Your task to perform on an android device: turn off notifications in google photos Image 0: 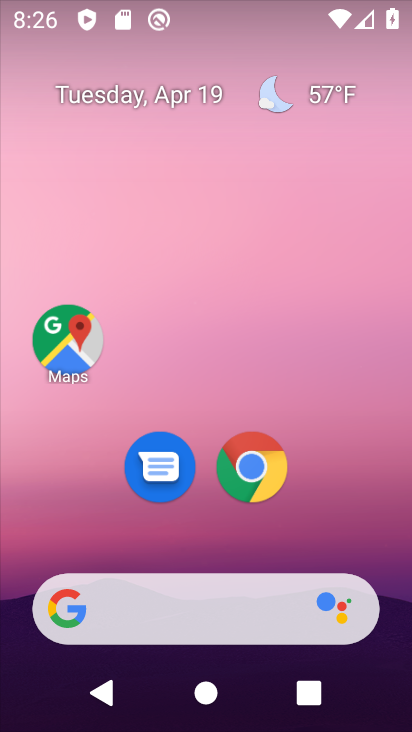
Step 0: drag from (384, 523) to (383, 29)
Your task to perform on an android device: turn off notifications in google photos Image 1: 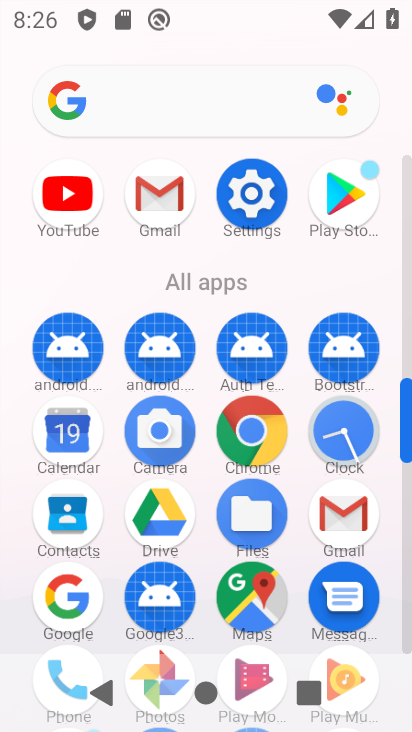
Step 1: drag from (404, 549) to (406, 499)
Your task to perform on an android device: turn off notifications in google photos Image 2: 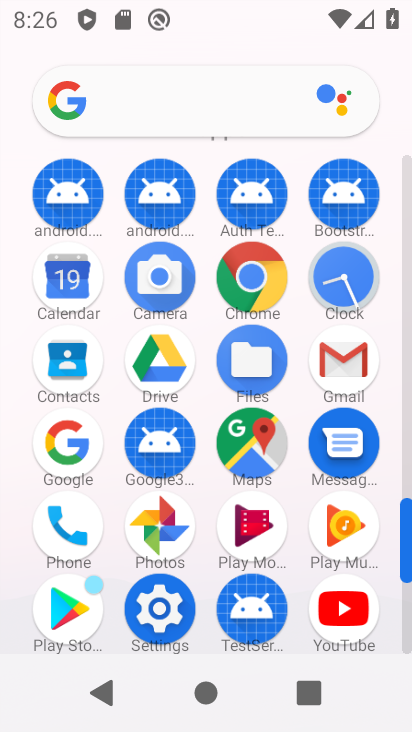
Step 2: click (169, 530)
Your task to perform on an android device: turn off notifications in google photos Image 3: 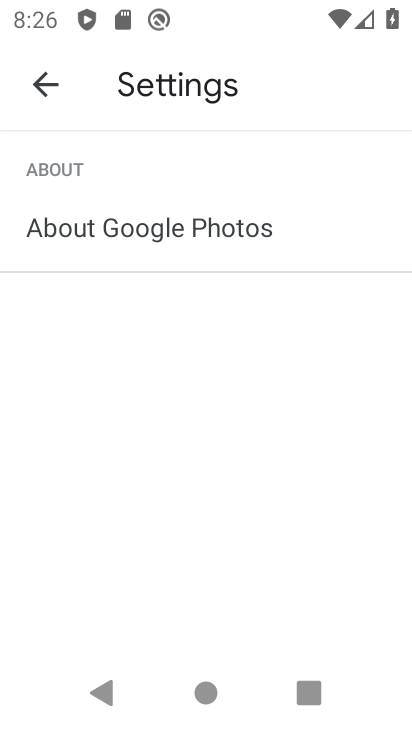
Step 3: click (38, 85)
Your task to perform on an android device: turn off notifications in google photos Image 4: 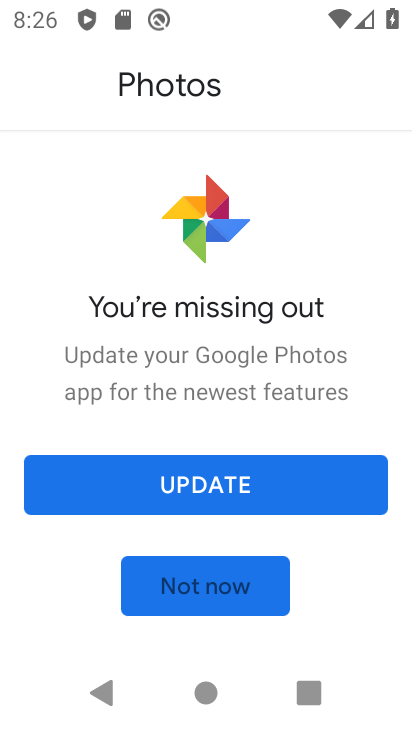
Step 4: click (206, 599)
Your task to perform on an android device: turn off notifications in google photos Image 5: 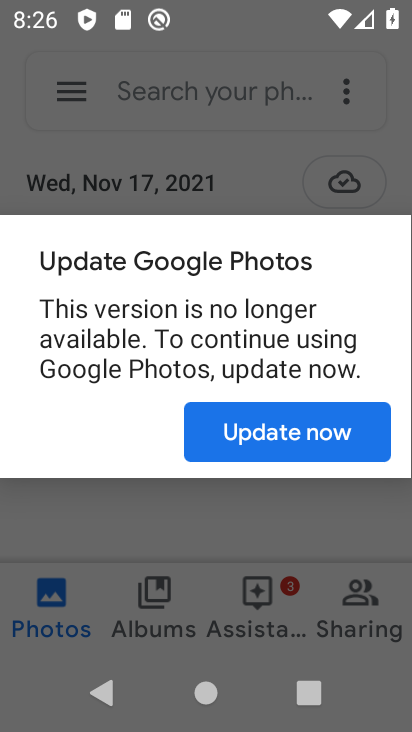
Step 5: click (259, 451)
Your task to perform on an android device: turn off notifications in google photos Image 6: 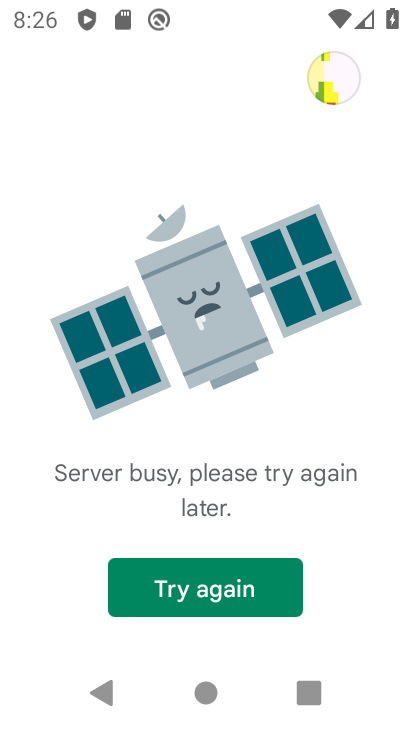
Step 6: click (218, 596)
Your task to perform on an android device: turn off notifications in google photos Image 7: 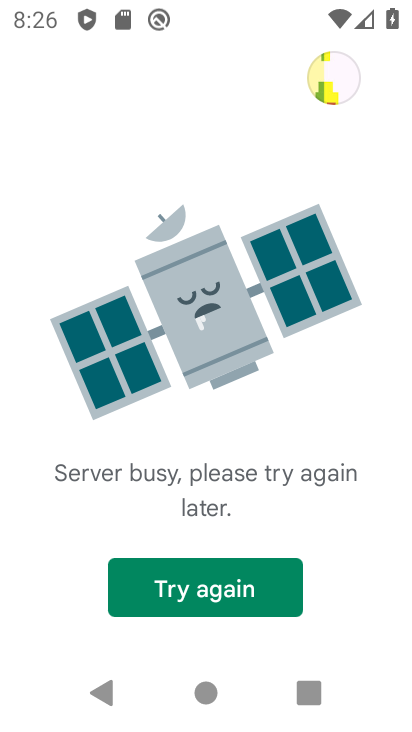
Step 7: click (104, 695)
Your task to perform on an android device: turn off notifications in google photos Image 8: 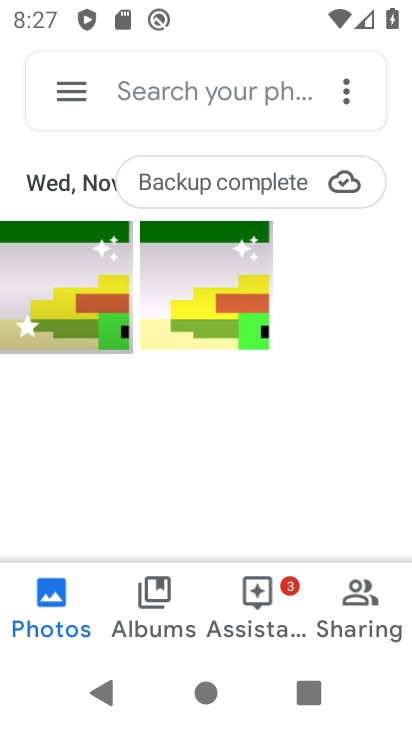
Step 8: click (54, 93)
Your task to perform on an android device: turn off notifications in google photos Image 9: 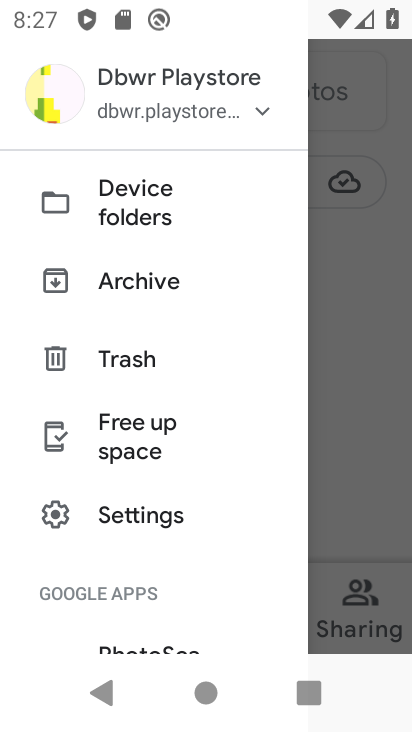
Step 9: click (125, 508)
Your task to perform on an android device: turn off notifications in google photos Image 10: 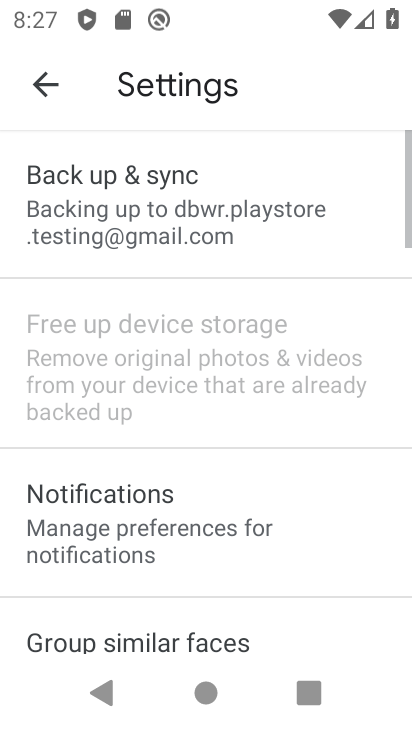
Step 10: click (125, 508)
Your task to perform on an android device: turn off notifications in google photos Image 11: 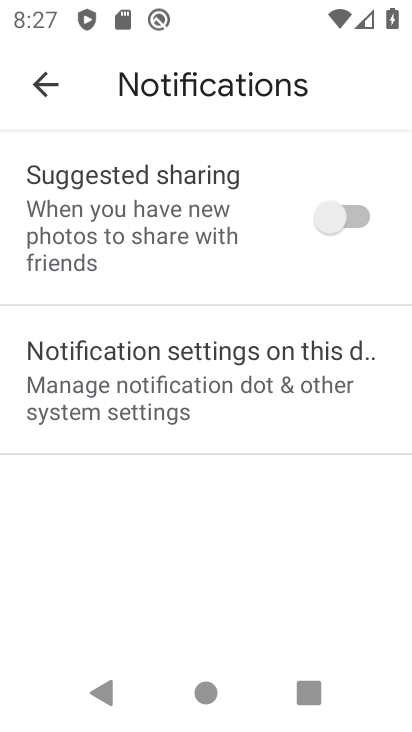
Step 11: click (137, 397)
Your task to perform on an android device: turn off notifications in google photos Image 12: 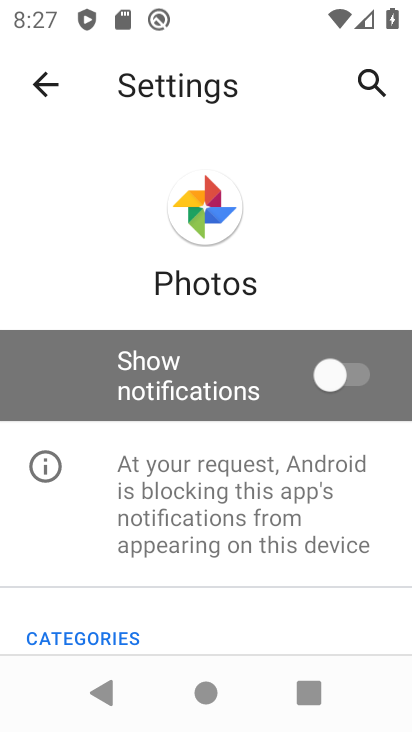
Step 12: task complete